Your task to perform on an android device: What's on my calendar today? Image 0: 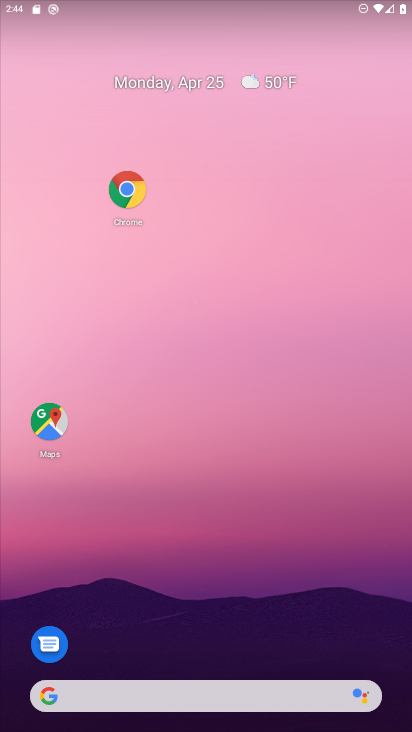
Step 0: drag from (169, 651) to (178, 189)
Your task to perform on an android device: What's on my calendar today? Image 1: 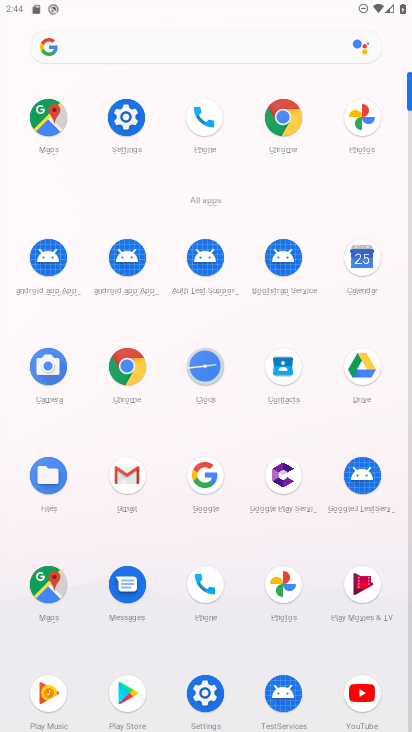
Step 1: click (370, 254)
Your task to perform on an android device: What's on my calendar today? Image 2: 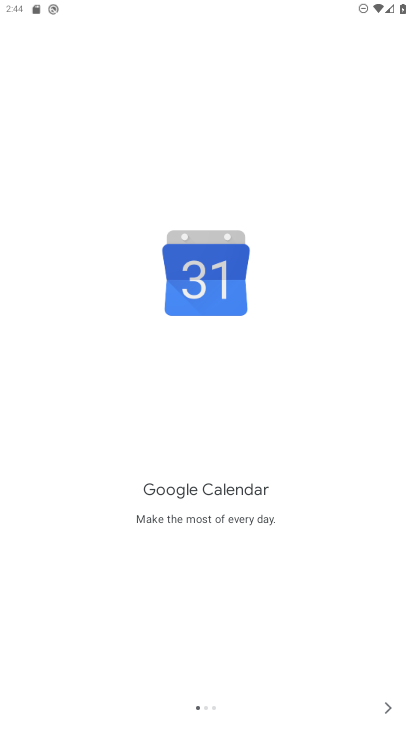
Step 2: click (387, 710)
Your task to perform on an android device: What's on my calendar today? Image 3: 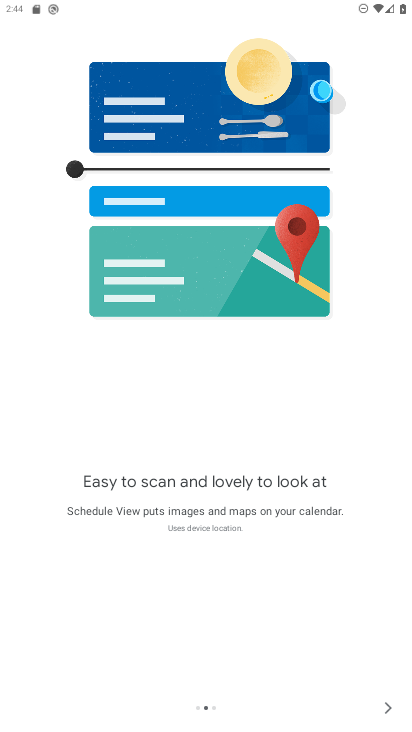
Step 3: click (386, 708)
Your task to perform on an android device: What's on my calendar today? Image 4: 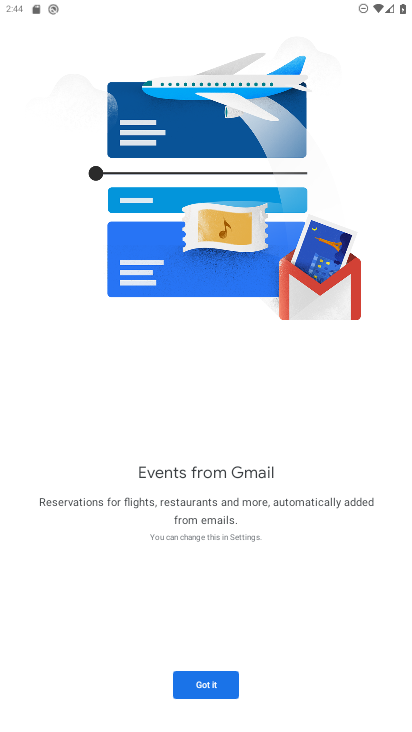
Step 4: click (385, 708)
Your task to perform on an android device: What's on my calendar today? Image 5: 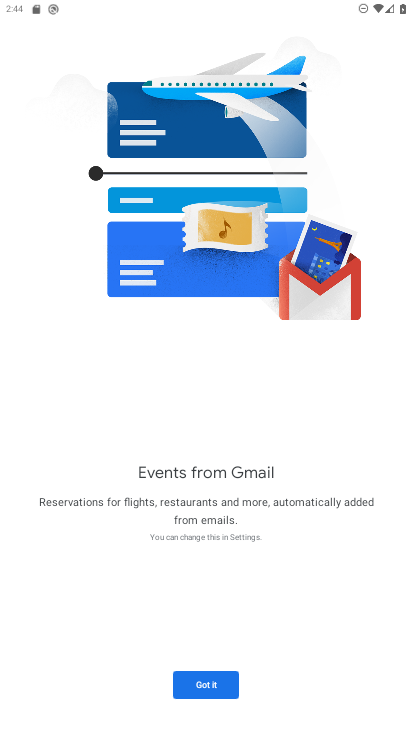
Step 5: click (218, 680)
Your task to perform on an android device: What's on my calendar today? Image 6: 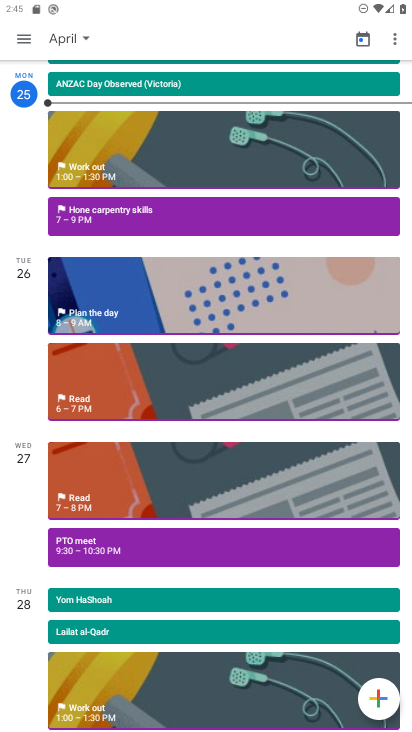
Step 6: click (87, 44)
Your task to perform on an android device: What's on my calendar today? Image 7: 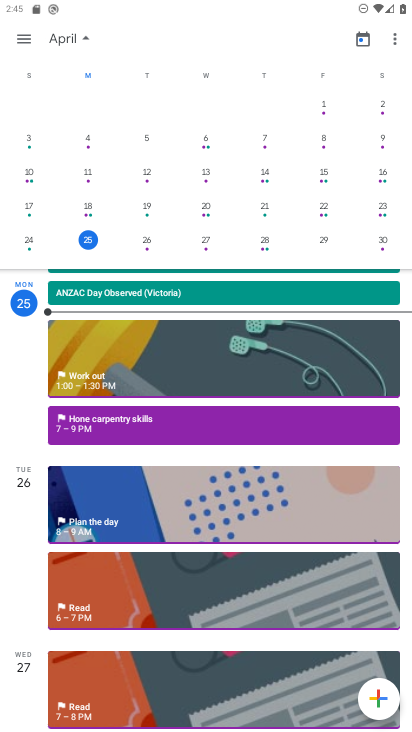
Step 7: task complete